Your task to perform on an android device: move a message to another label in the gmail app Image 0: 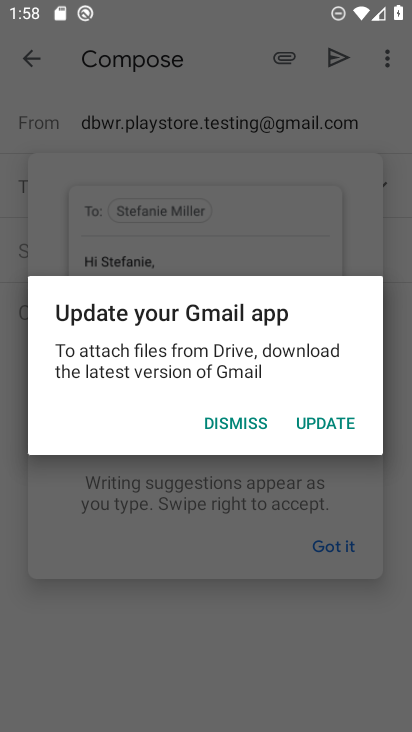
Step 0: press home button
Your task to perform on an android device: move a message to another label in the gmail app Image 1: 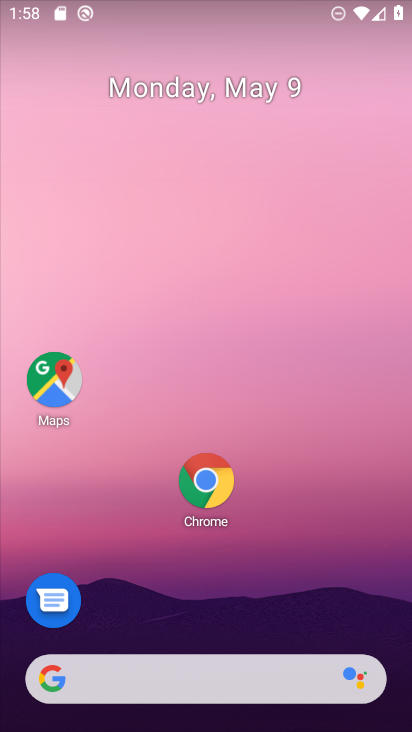
Step 1: drag from (179, 687) to (354, 135)
Your task to perform on an android device: move a message to another label in the gmail app Image 2: 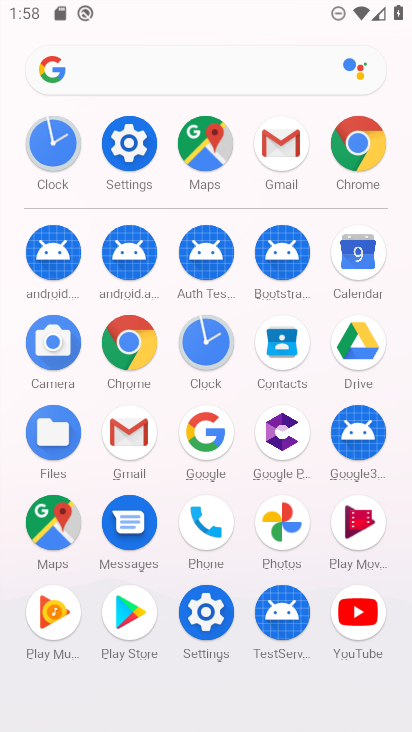
Step 2: click (286, 146)
Your task to perform on an android device: move a message to another label in the gmail app Image 3: 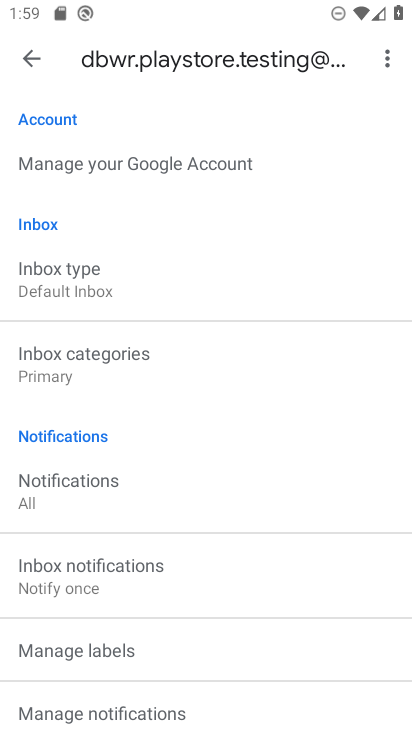
Step 3: click (28, 58)
Your task to perform on an android device: move a message to another label in the gmail app Image 4: 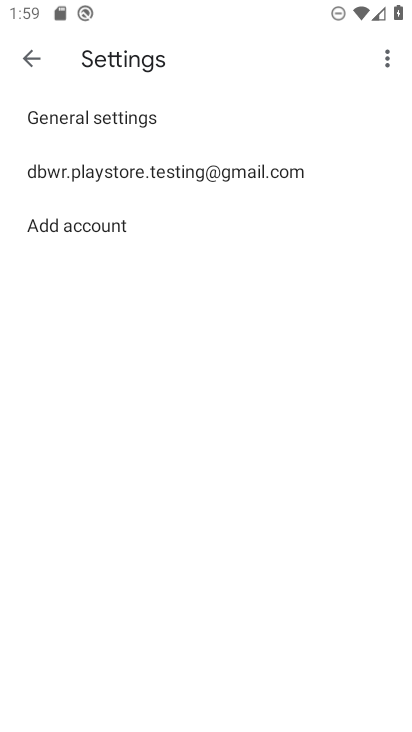
Step 4: click (28, 58)
Your task to perform on an android device: move a message to another label in the gmail app Image 5: 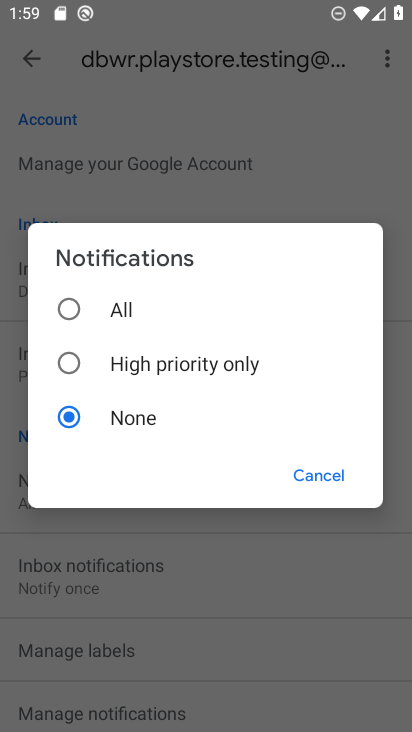
Step 5: click (28, 58)
Your task to perform on an android device: move a message to another label in the gmail app Image 6: 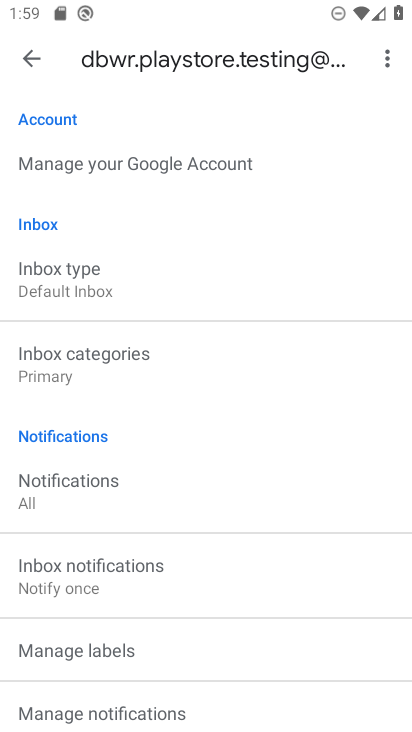
Step 6: click (28, 58)
Your task to perform on an android device: move a message to another label in the gmail app Image 7: 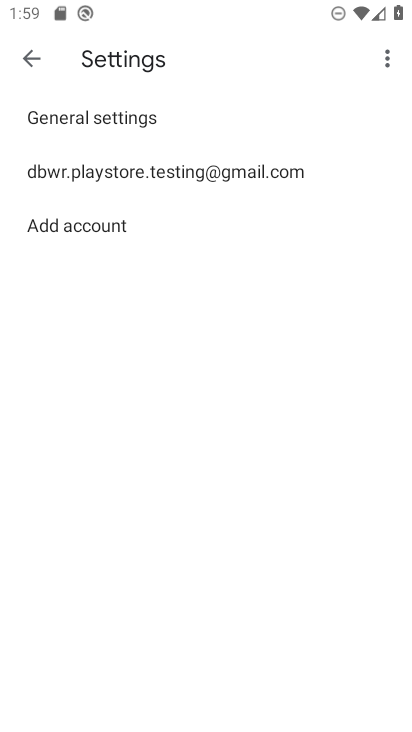
Step 7: click (28, 58)
Your task to perform on an android device: move a message to another label in the gmail app Image 8: 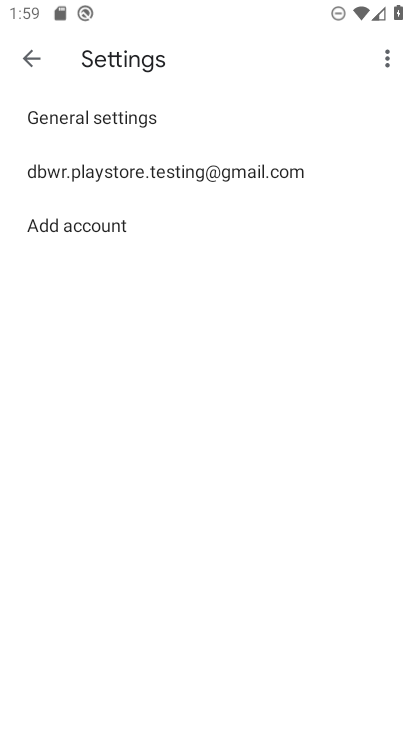
Step 8: click (35, 58)
Your task to perform on an android device: move a message to another label in the gmail app Image 9: 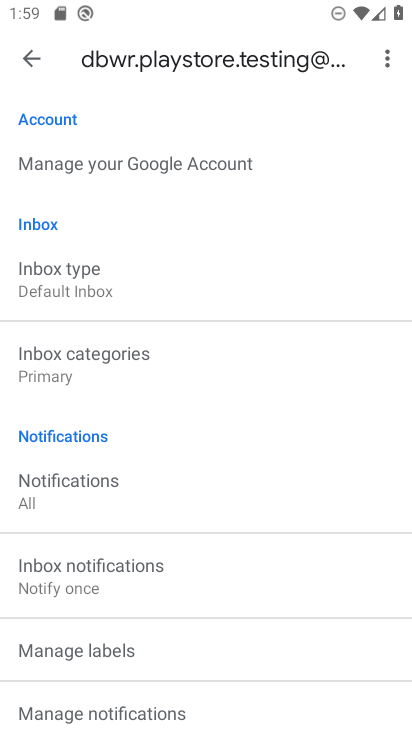
Step 9: click (32, 52)
Your task to perform on an android device: move a message to another label in the gmail app Image 10: 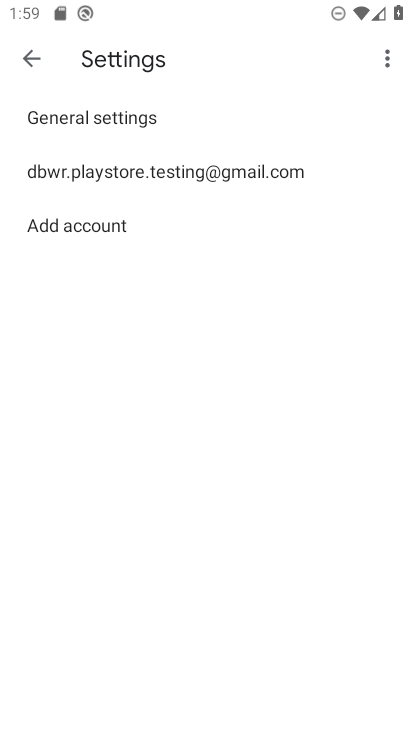
Step 10: click (32, 52)
Your task to perform on an android device: move a message to another label in the gmail app Image 11: 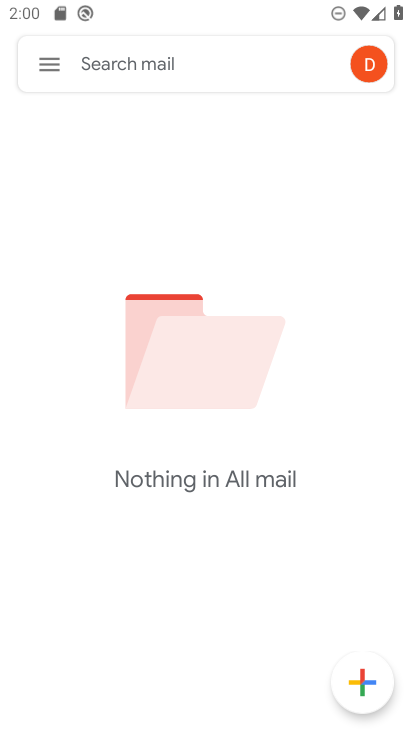
Step 11: task complete